Your task to perform on an android device: Open display settings Image 0: 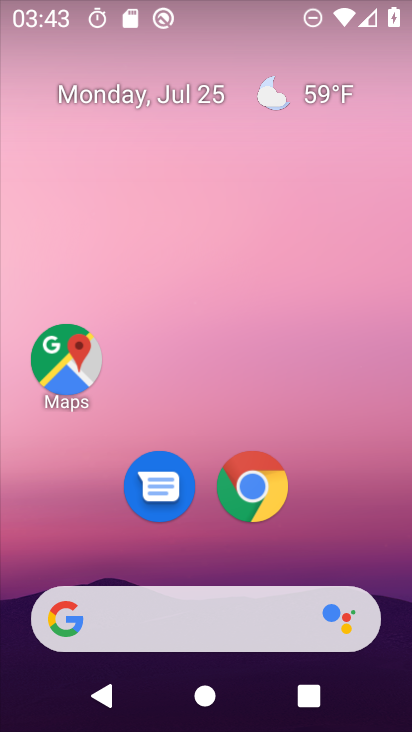
Step 0: drag from (254, 393) to (272, 2)
Your task to perform on an android device: Open display settings Image 1: 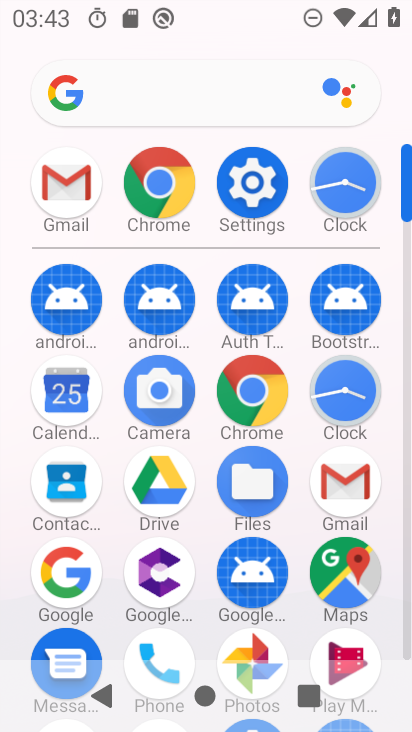
Step 1: click (259, 176)
Your task to perform on an android device: Open display settings Image 2: 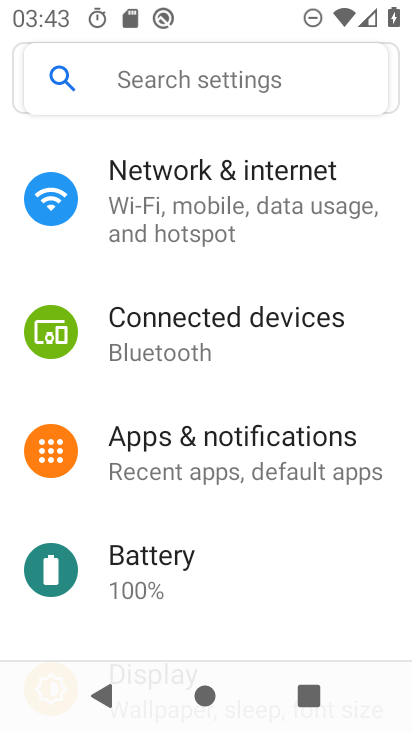
Step 2: drag from (208, 355) to (274, 41)
Your task to perform on an android device: Open display settings Image 3: 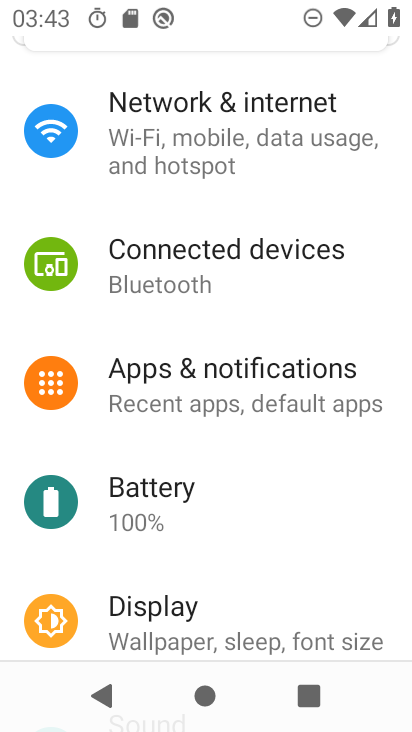
Step 3: click (161, 604)
Your task to perform on an android device: Open display settings Image 4: 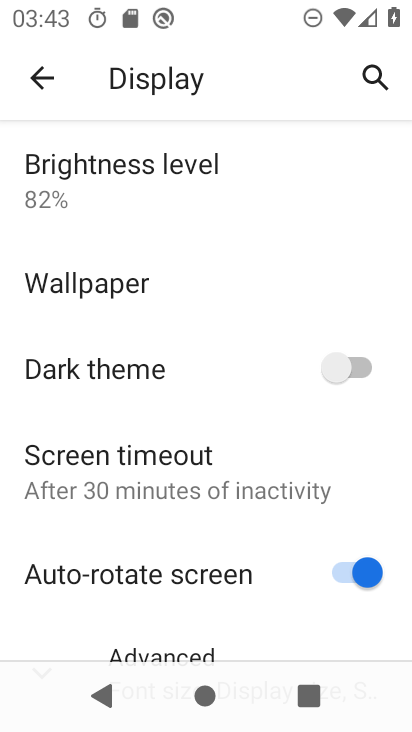
Step 4: task complete